Your task to perform on an android device: set the timer Image 0: 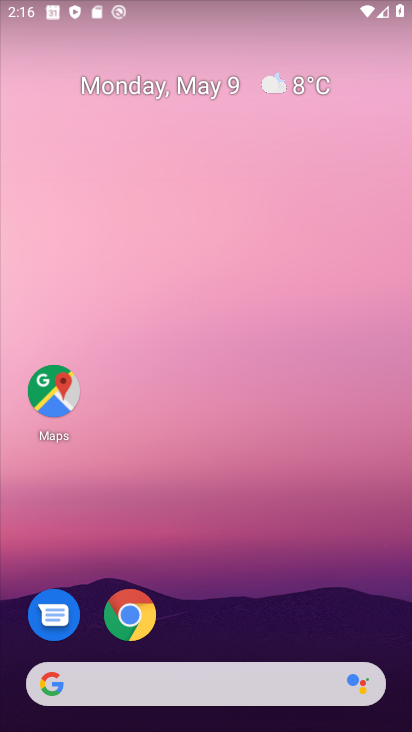
Step 0: drag from (221, 623) to (210, 367)
Your task to perform on an android device: set the timer Image 1: 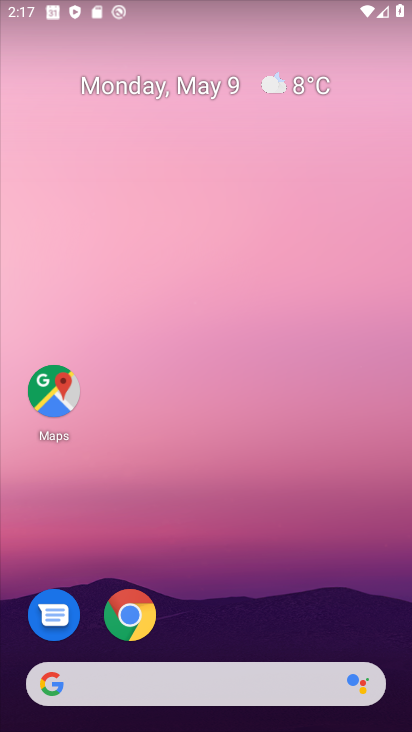
Step 1: drag from (244, 616) to (241, 195)
Your task to perform on an android device: set the timer Image 2: 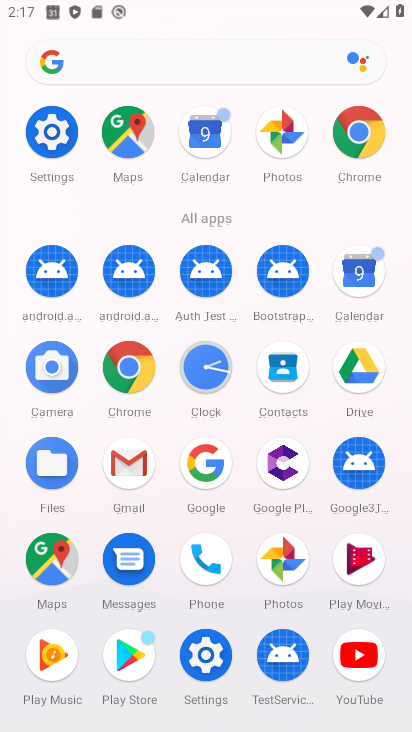
Step 2: click (207, 373)
Your task to perform on an android device: set the timer Image 3: 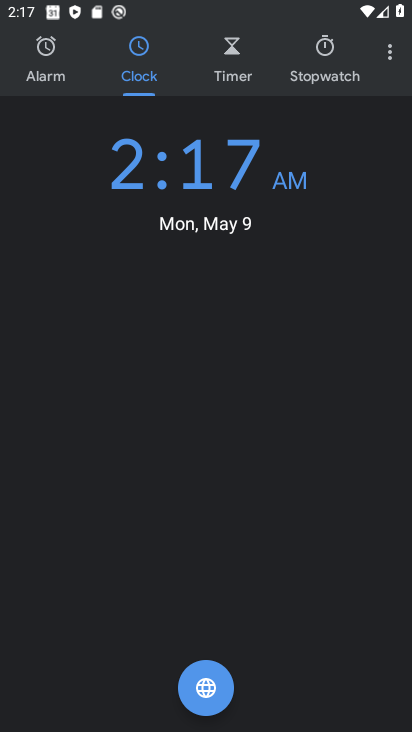
Step 3: click (241, 60)
Your task to perform on an android device: set the timer Image 4: 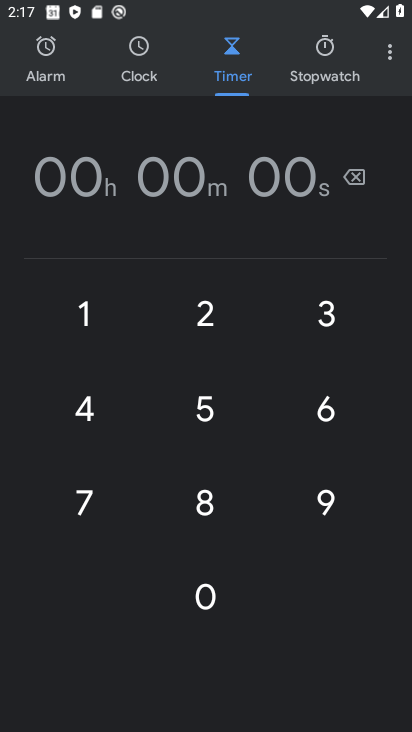
Step 4: type "100000"
Your task to perform on an android device: set the timer Image 5: 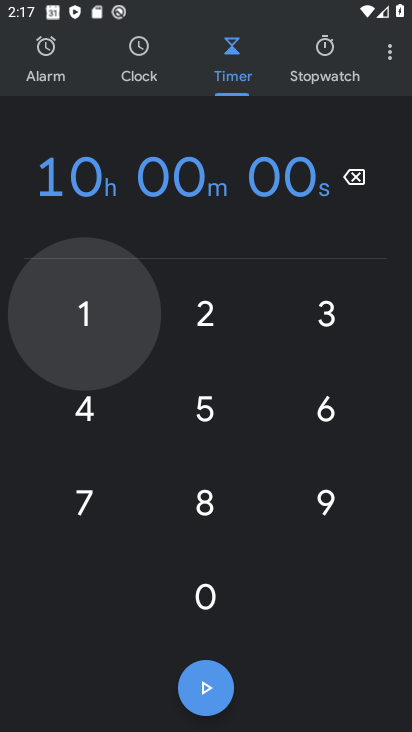
Step 5: click (223, 693)
Your task to perform on an android device: set the timer Image 6: 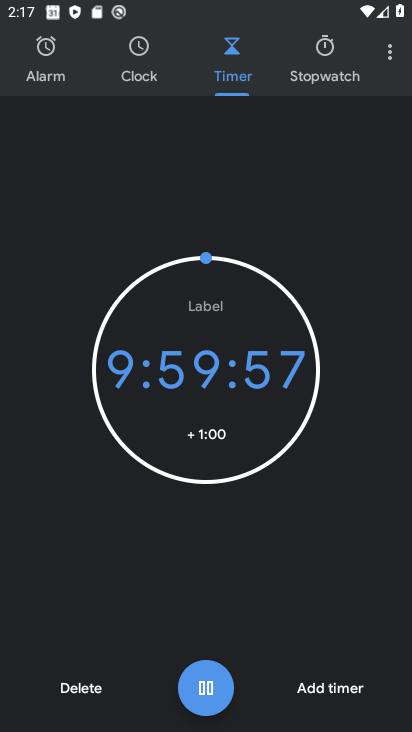
Step 6: task complete